Your task to perform on an android device: turn off improve location accuracy Image 0: 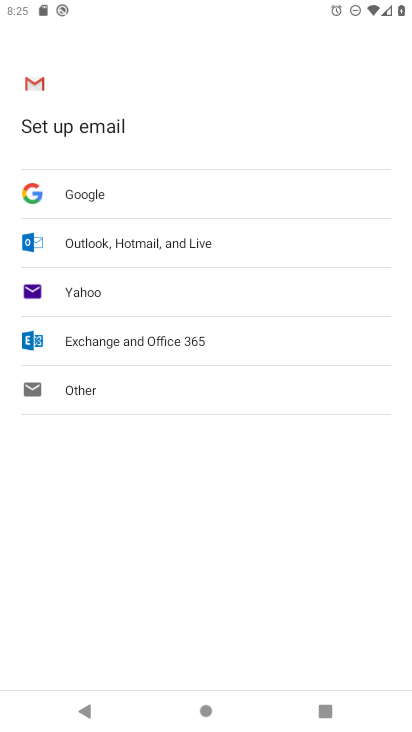
Step 0: click (27, 701)
Your task to perform on an android device: turn off improve location accuracy Image 1: 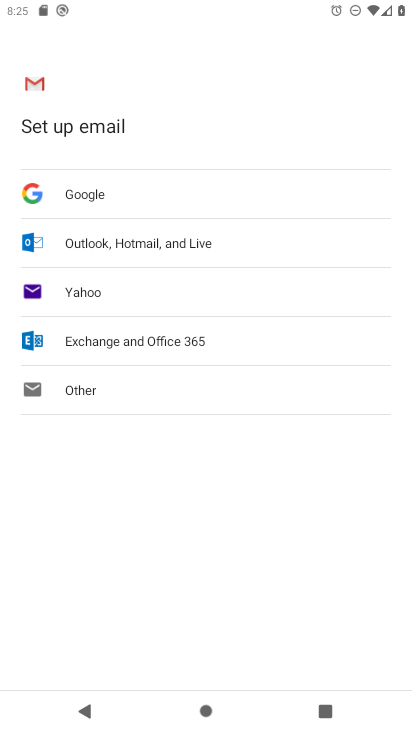
Step 1: press home button
Your task to perform on an android device: turn off improve location accuracy Image 2: 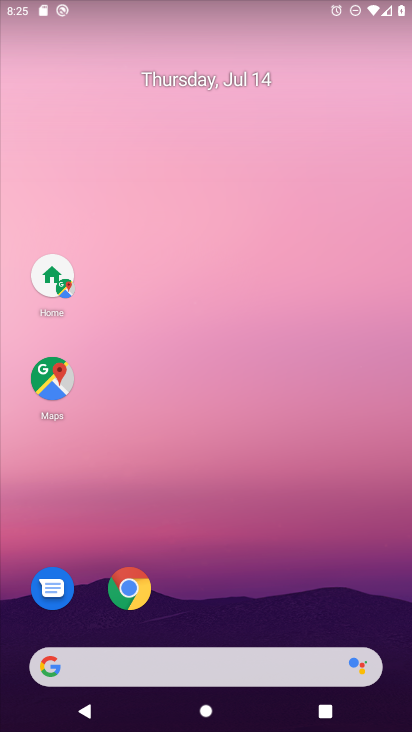
Step 2: drag from (218, 192) to (248, 46)
Your task to perform on an android device: turn off improve location accuracy Image 3: 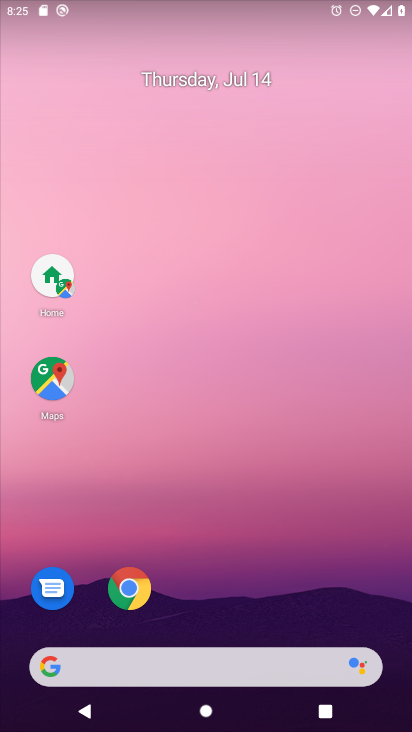
Step 3: drag from (28, 690) to (362, 33)
Your task to perform on an android device: turn off improve location accuracy Image 4: 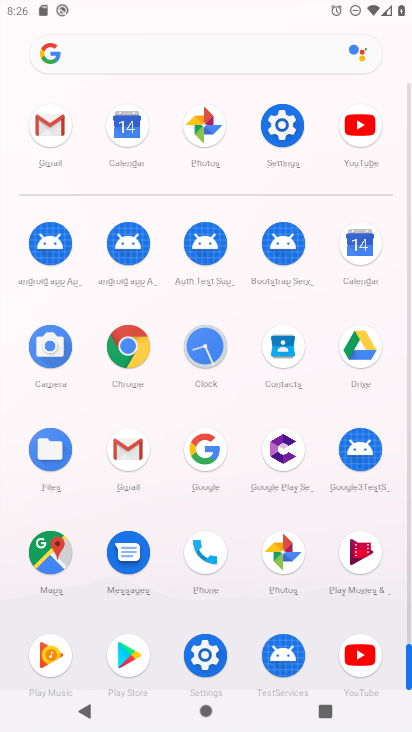
Step 4: click (210, 659)
Your task to perform on an android device: turn off improve location accuracy Image 5: 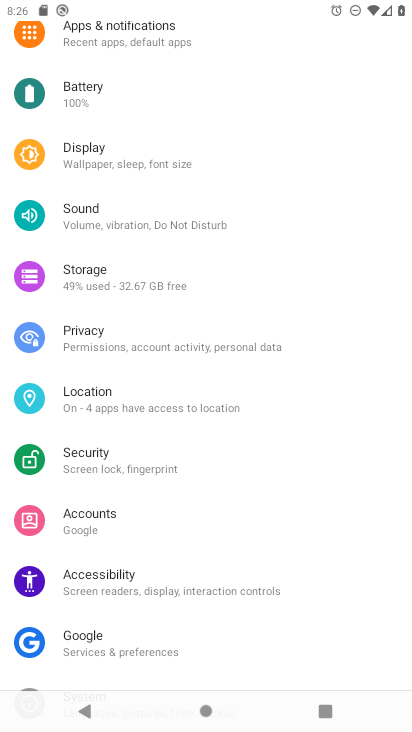
Step 5: click (112, 406)
Your task to perform on an android device: turn off improve location accuracy Image 6: 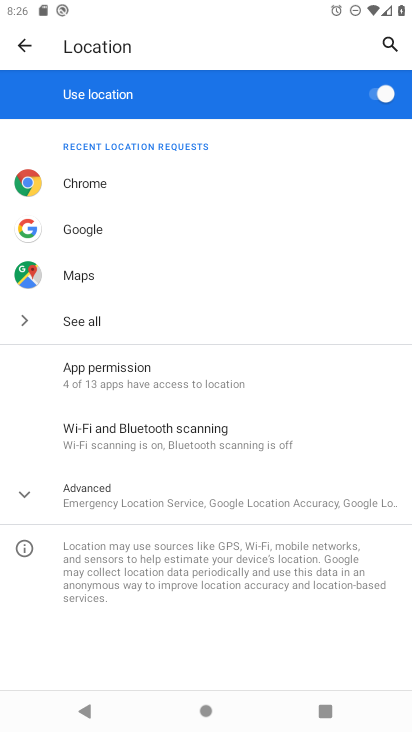
Step 6: click (91, 493)
Your task to perform on an android device: turn off improve location accuracy Image 7: 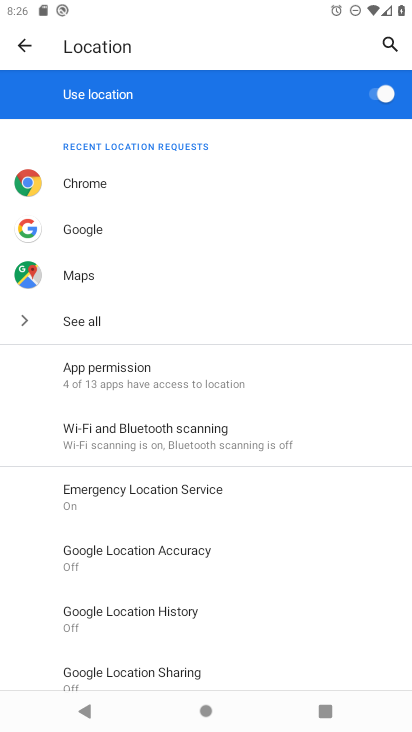
Step 7: click (145, 550)
Your task to perform on an android device: turn off improve location accuracy Image 8: 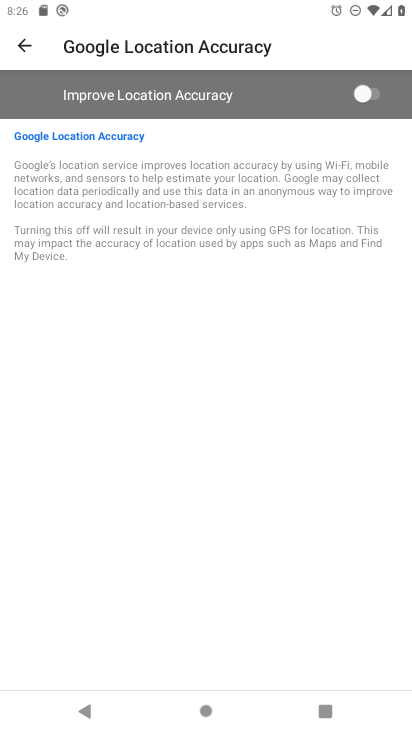
Step 8: task complete